Your task to perform on an android device: What's the weather going to be tomorrow? Image 0: 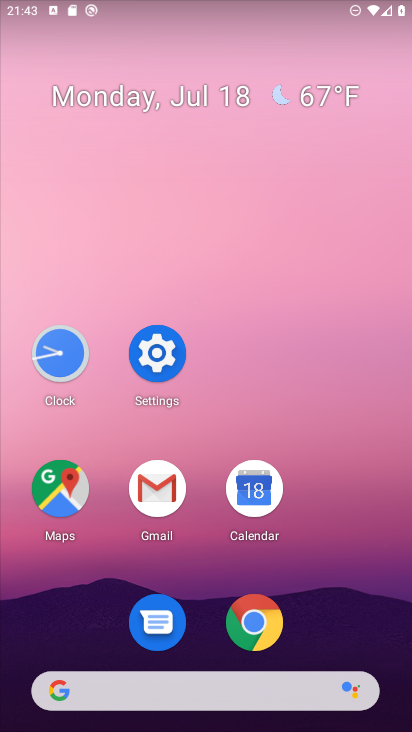
Step 0: click (309, 98)
Your task to perform on an android device: What's the weather going to be tomorrow? Image 1: 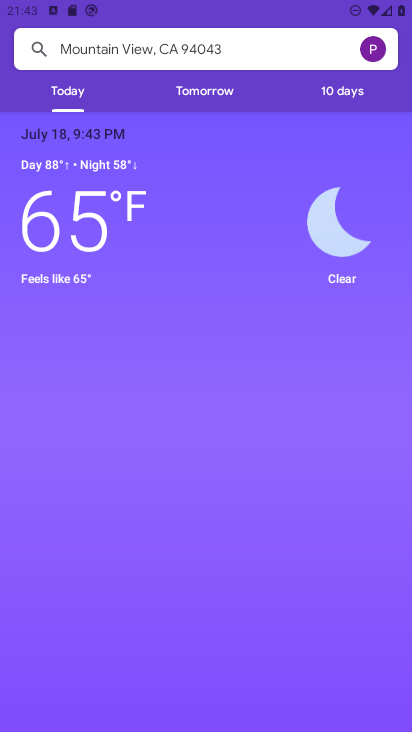
Step 1: click (213, 89)
Your task to perform on an android device: What's the weather going to be tomorrow? Image 2: 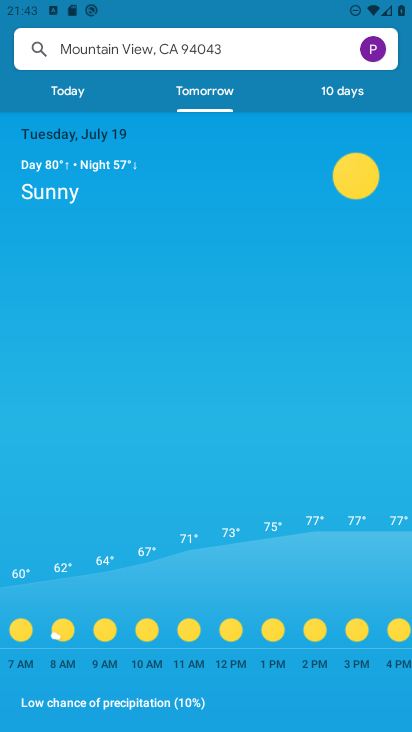
Step 2: task complete